Your task to perform on an android device: change the clock display to analog Image 0: 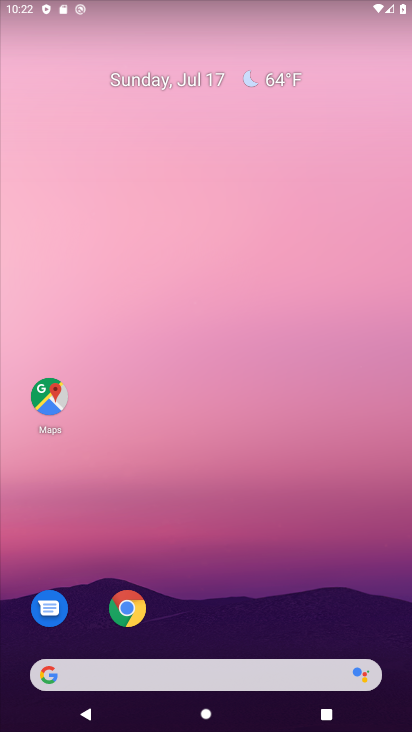
Step 0: drag from (308, 614) to (218, 34)
Your task to perform on an android device: change the clock display to analog Image 1: 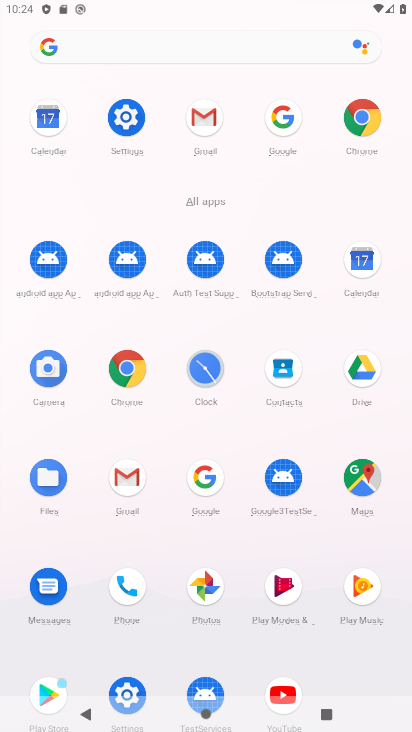
Step 1: click (204, 362)
Your task to perform on an android device: change the clock display to analog Image 2: 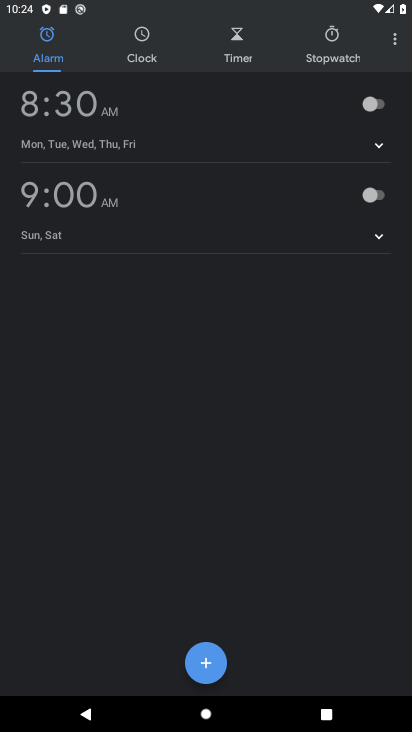
Step 2: click (391, 37)
Your task to perform on an android device: change the clock display to analog Image 3: 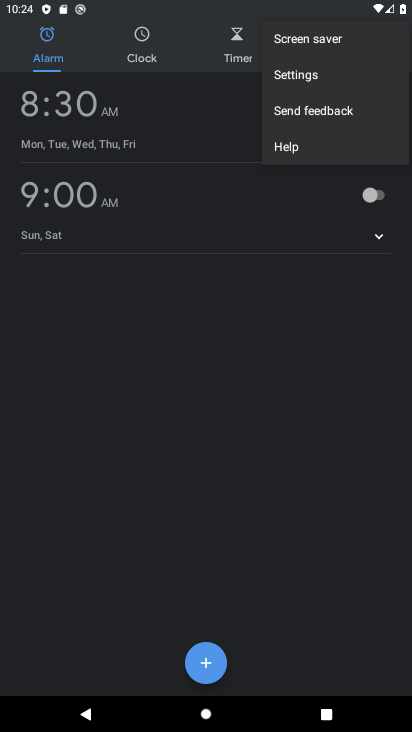
Step 3: click (306, 72)
Your task to perform on an android device: change the clock display to analog Image 4: 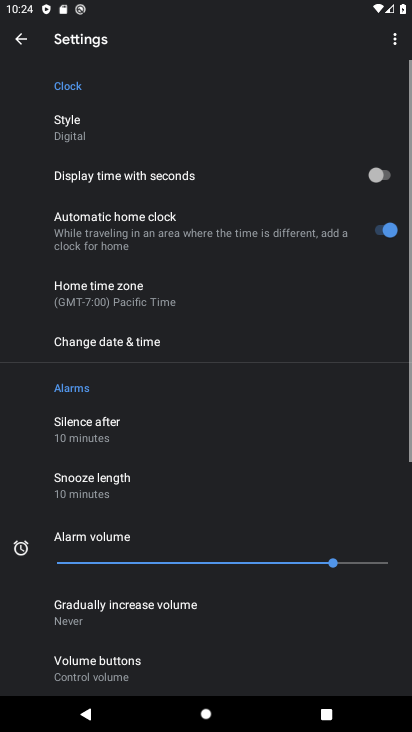
Step 4: click (81, 136)
Your task to perform on an android device: change the clock display to analog Image 5: 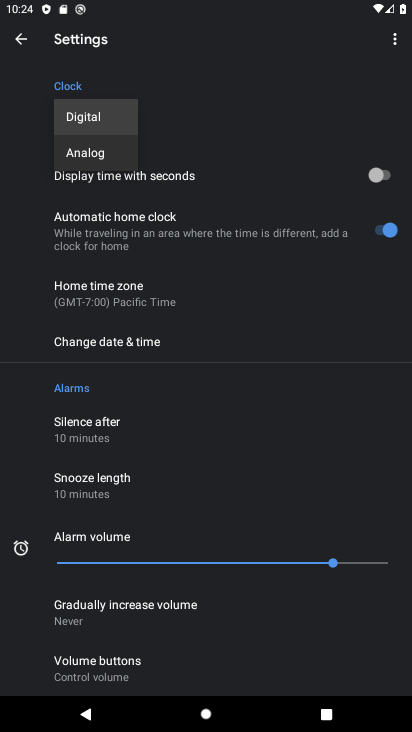
Step 5: click (98, 157)
Your task to perform on an android device: change the clock display to analog Image 6: 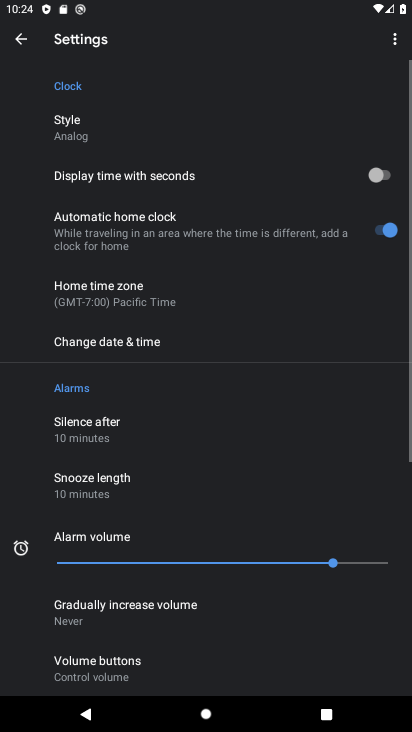
Step 6: task complete